Your task to perform on an android device: Go to battery settings Image 0: 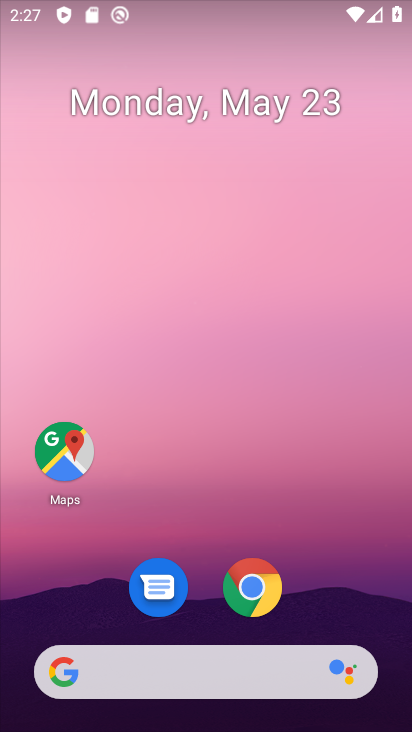
Step 0: drag from (208, 571) to (158, 133)
Your task to perform on an android device: Go to battery settings Image 1: 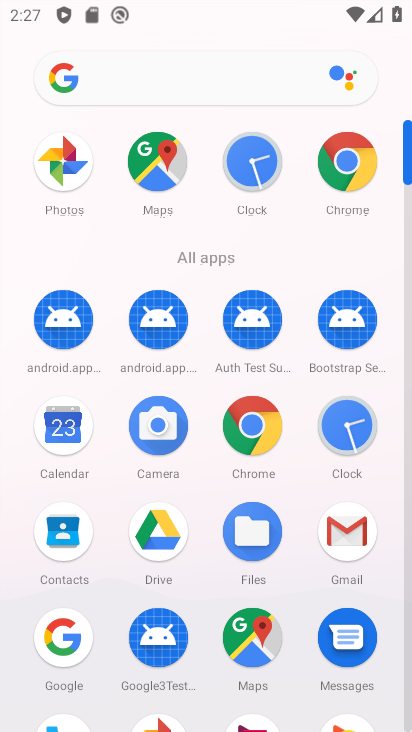
Step 1: drag from (214, 660) to (213, 359)
Your task to perform on an android device: Go to battery settings Image 2: 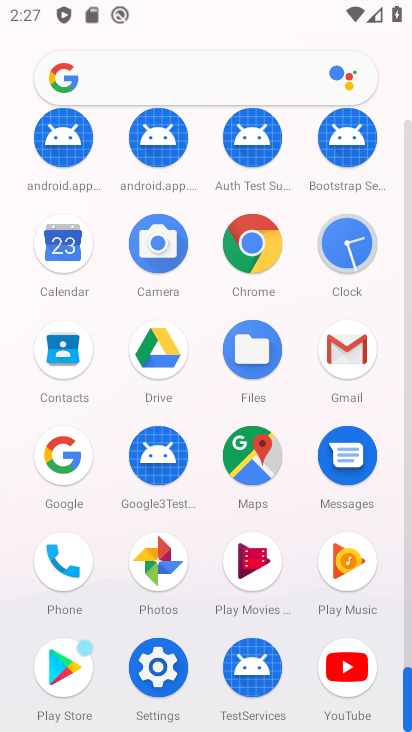
Step 2: click (160, 660)
Your task to perform on an android device: Go to battery settings Image 3: 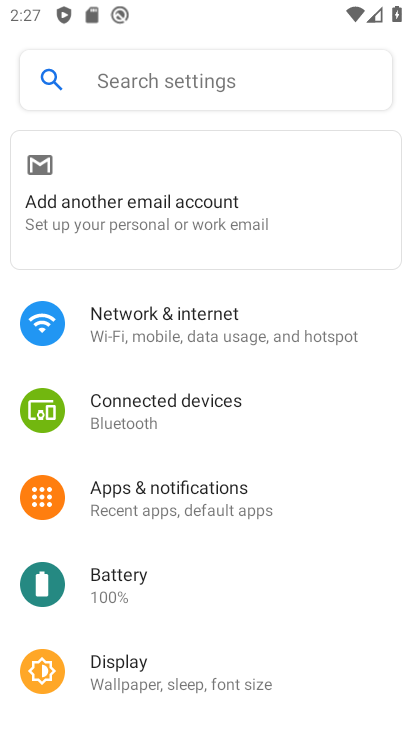
Step 3: click (107, 604)
Your task to perform on an android device: Go to battery settings Image 4: 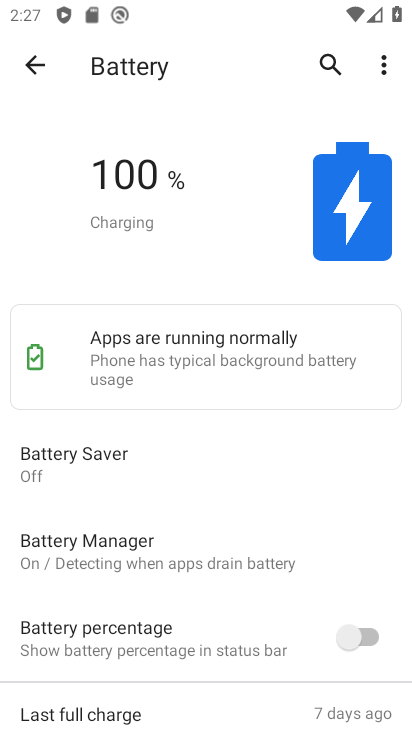
Step 4: task complete